Your task to perform on an android device: turn pop-ups off in chrome Image 0: 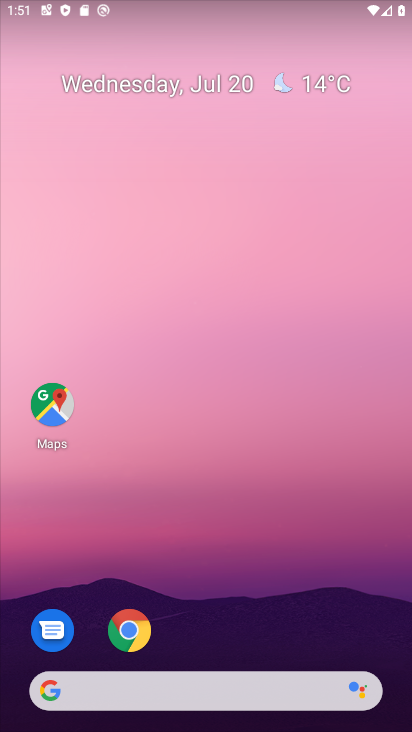
Step 0: press home button
Your task to perform on an android device: turn pop-ups off in chrome Image 1: 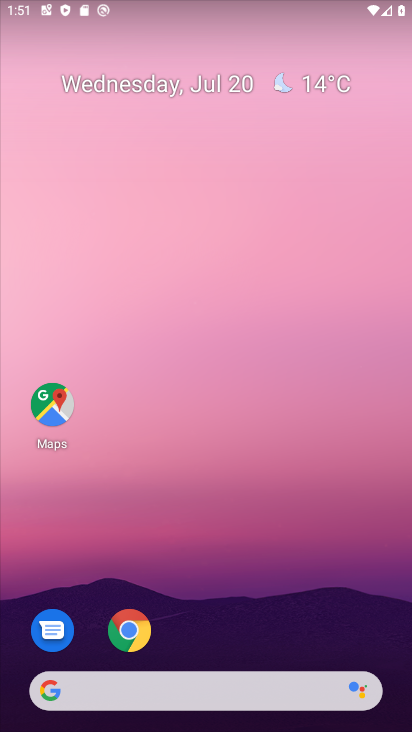
Step 1: drag from (274, 655) to (353, 103)
Your task to perform on an android device: turn pop-ups off in chrome Image 2: 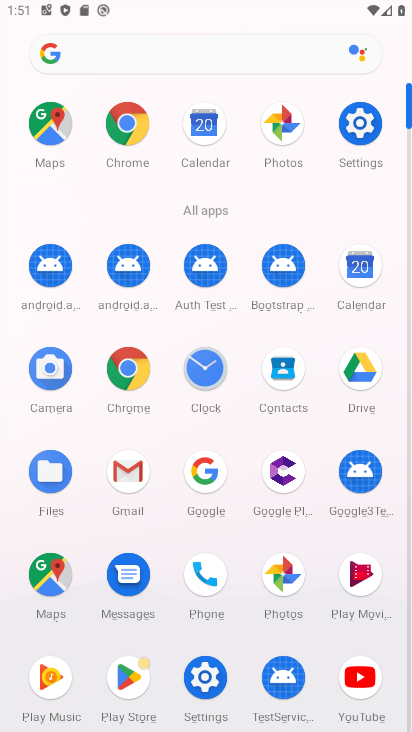
Step 2: click (135, 133)
Your task to perform on an android device: turn pop-ups off in chrome Image 3: 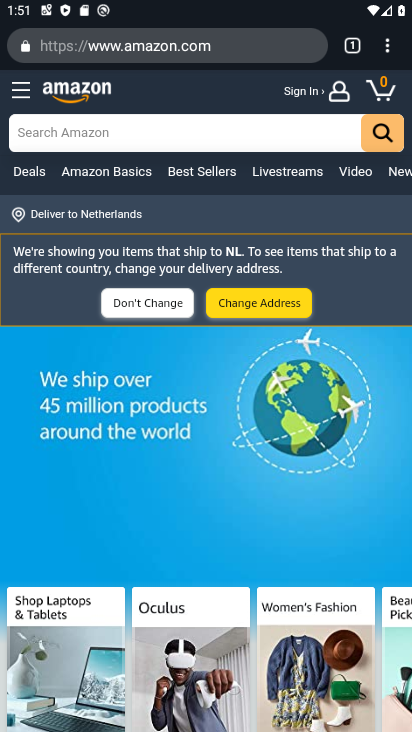
Step 3: click (383, 49)
Your task to perform on an android device: turn pop-ups off in chrome Image 4: 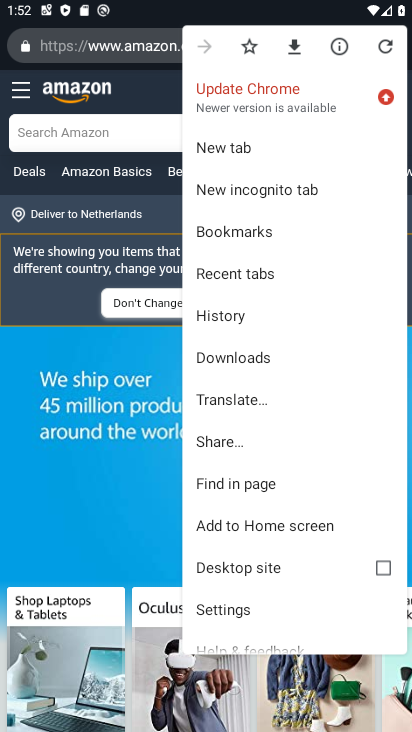
Step 4: click (235, 608)
Your task to perform on an android device: turn pop-ups off in chrome Image 5: 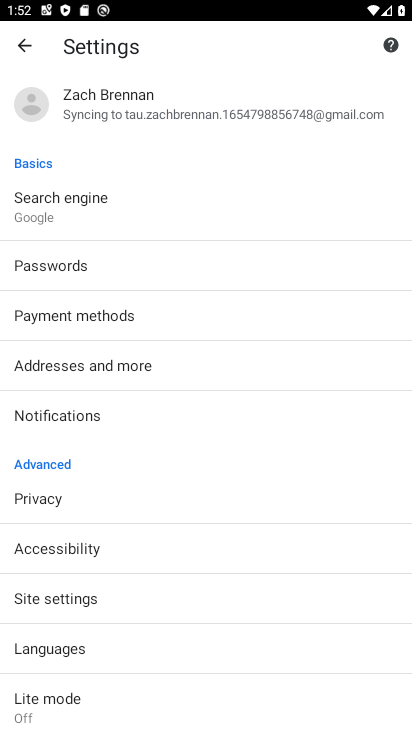
Step 5: click (45, 594)
Your task to perform on an android device: turn pop-ups off in chrome Image 6: 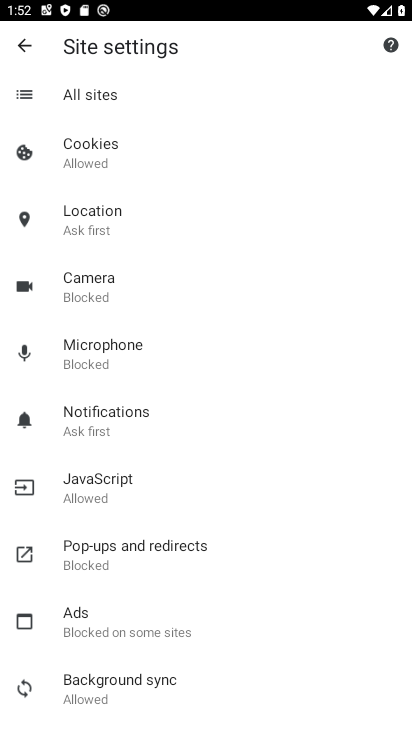
Step 6: click (115, 544)
Your task to perform on an android device: turn pop-ups off in chrome Image 7: 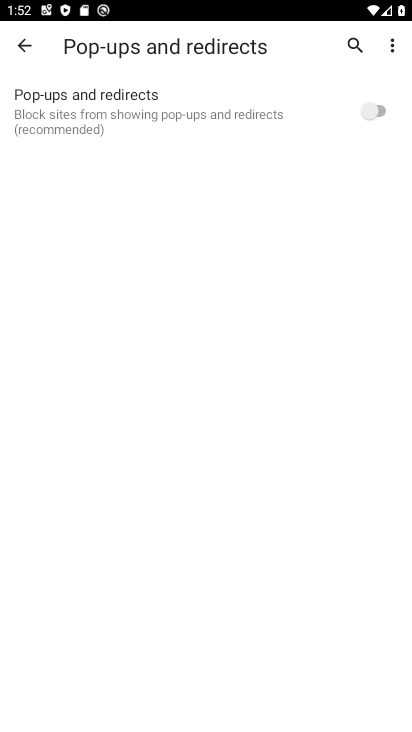
Step 7: click (378, 109)
Your task to perform on an android device: turn pop-ups off in chrome Image 8: 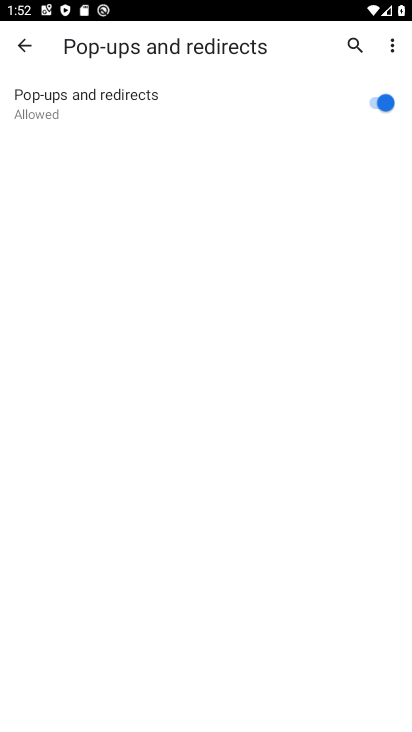
Step 8: click (378, 109)
Your task to perform on an android device: turn pop-ups off in chrome Image 9: 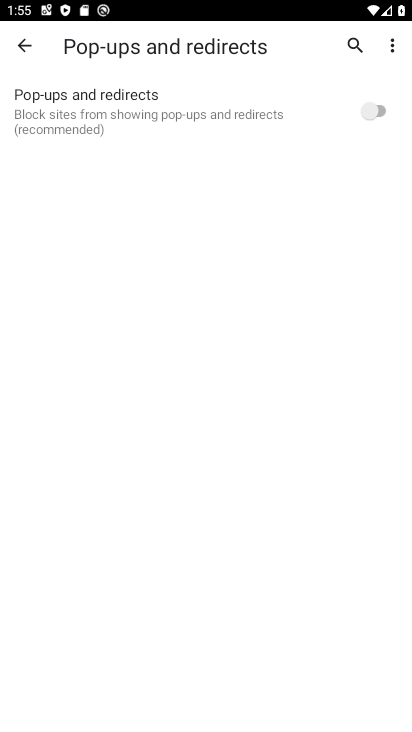
Step 9: task complete